Your task to perform on an android device: toggle translation in the chrome app Image 0: 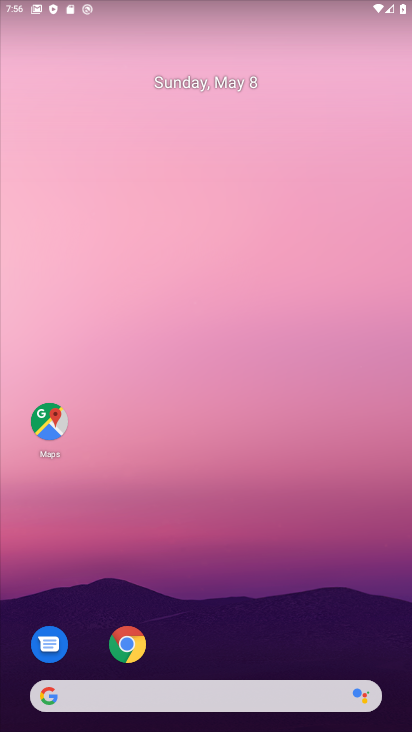
Step 0: click (130, 644)
Your task to perform on an android device: toggle translation in the chrome app Image 1: 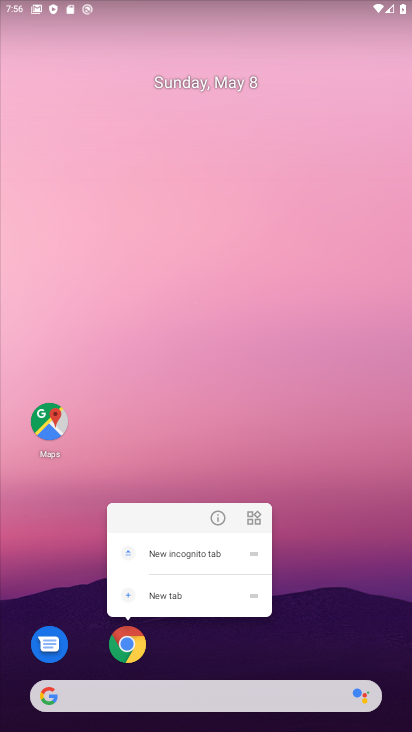
Step 1: click (122, 650)
Your task to perform on an android device: toggle translation in the chrome app Image 2: 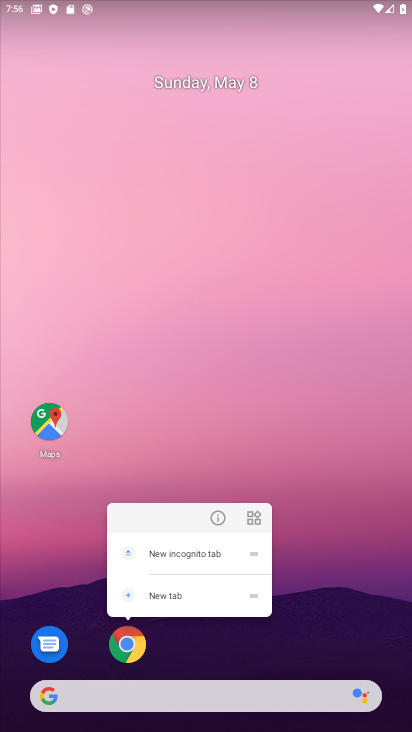
Step 2: click (127, 644)
Your task to perform on an android device: toggle translation in the chrome app Image 3: 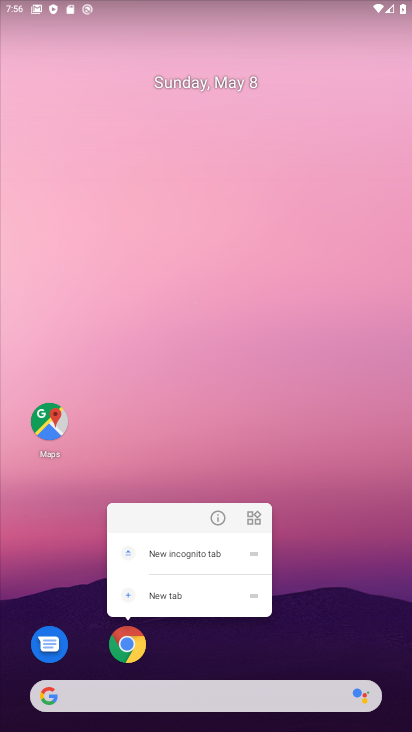
Step 3: click (127, 644)
Your task to perform on an android device: toggle translation in the chrome app Image 4: 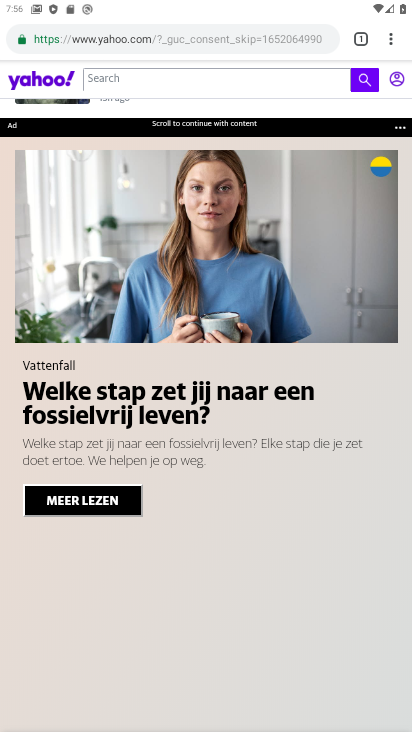
Step 4: click (391, 36)
Your task to perform on an android device: toggle translation in the chrome app Image 5: 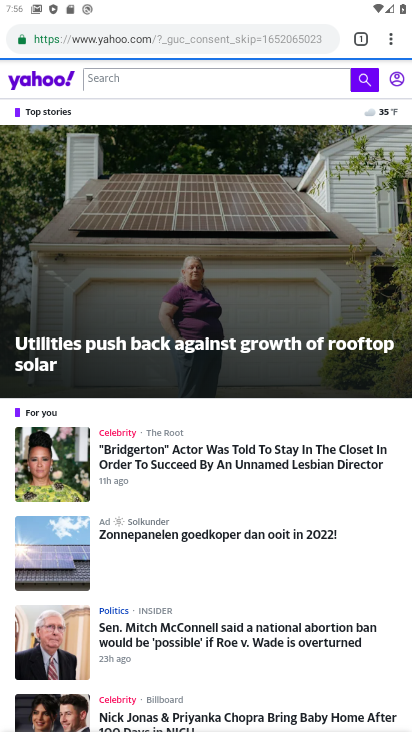
Step 5: click (391, 36)
Your task to perform on an android device: toggle translation in the chrome app Image 6: 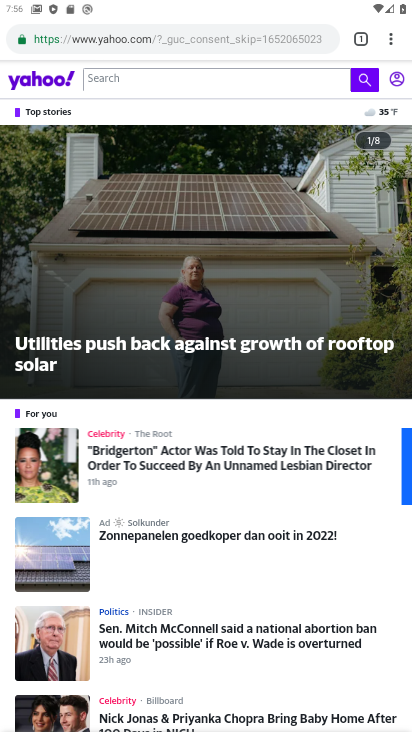
Step 6: click (391, 36)
Your task to perform on an android device: toggle translation in the chrome app Image 7: 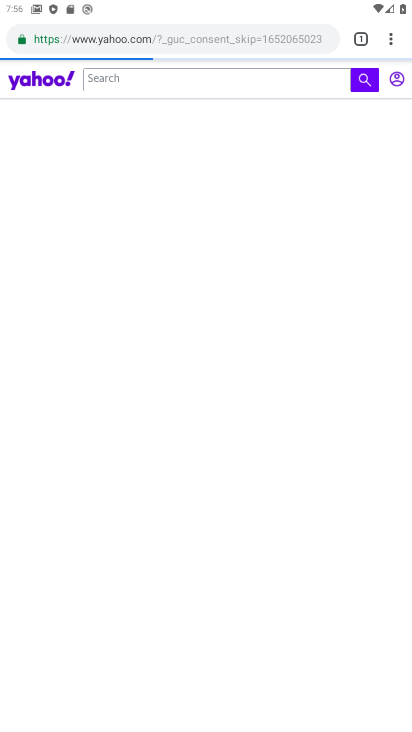
Step 7: click (391, 36)
Your task to perform on an android device: toggle translation in the chrome app Image 8: 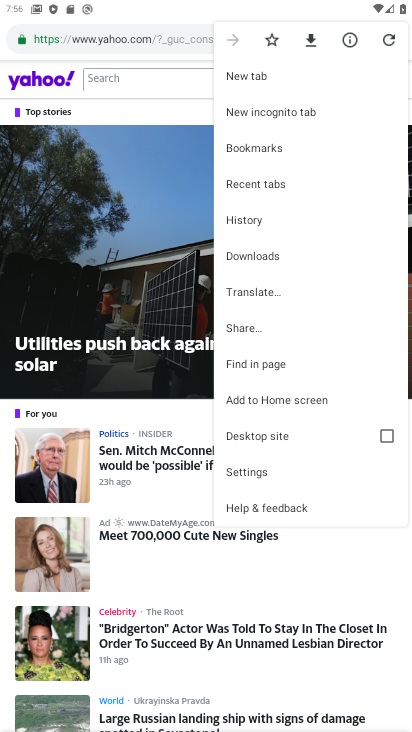
Step 8: click (242, 468)
Your task to perform on an android device: toggle translation in the chrome app Image 9: 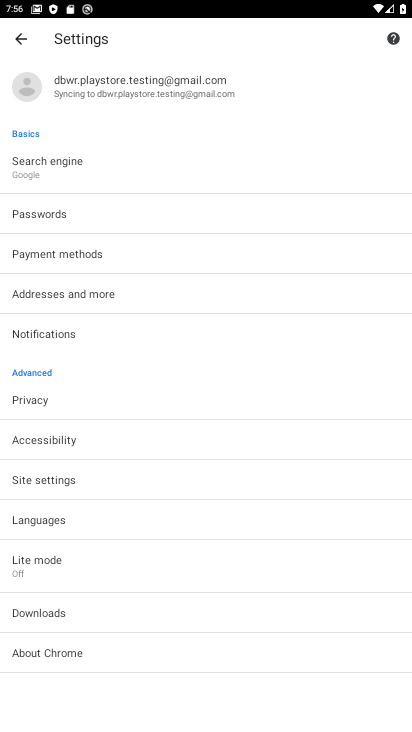
Step 9: click (50, 517)
Your task to perform on an android device: toggle translation in the chrome app Image 10: 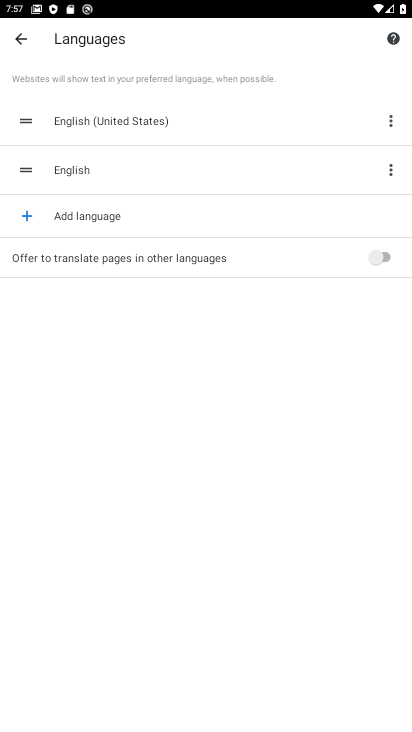
Step 10: click (386, 253)
Your task to perform on an android device: toggle translation in the chrome app Image 11: 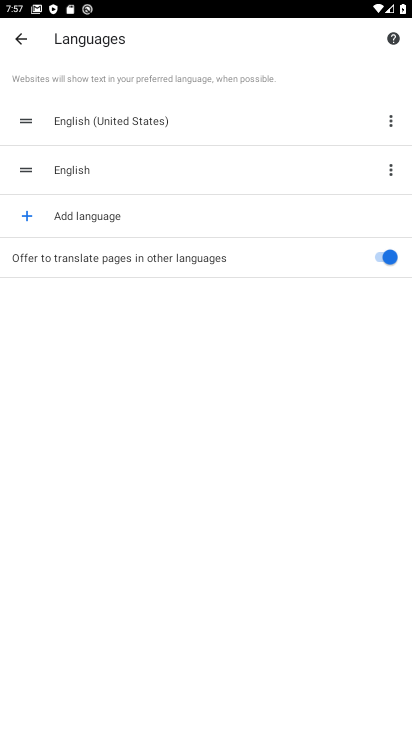
Step 11: task complete